Your task to perform on an android device: open app "NewsBreak: Local News & Alerts" Image 0: 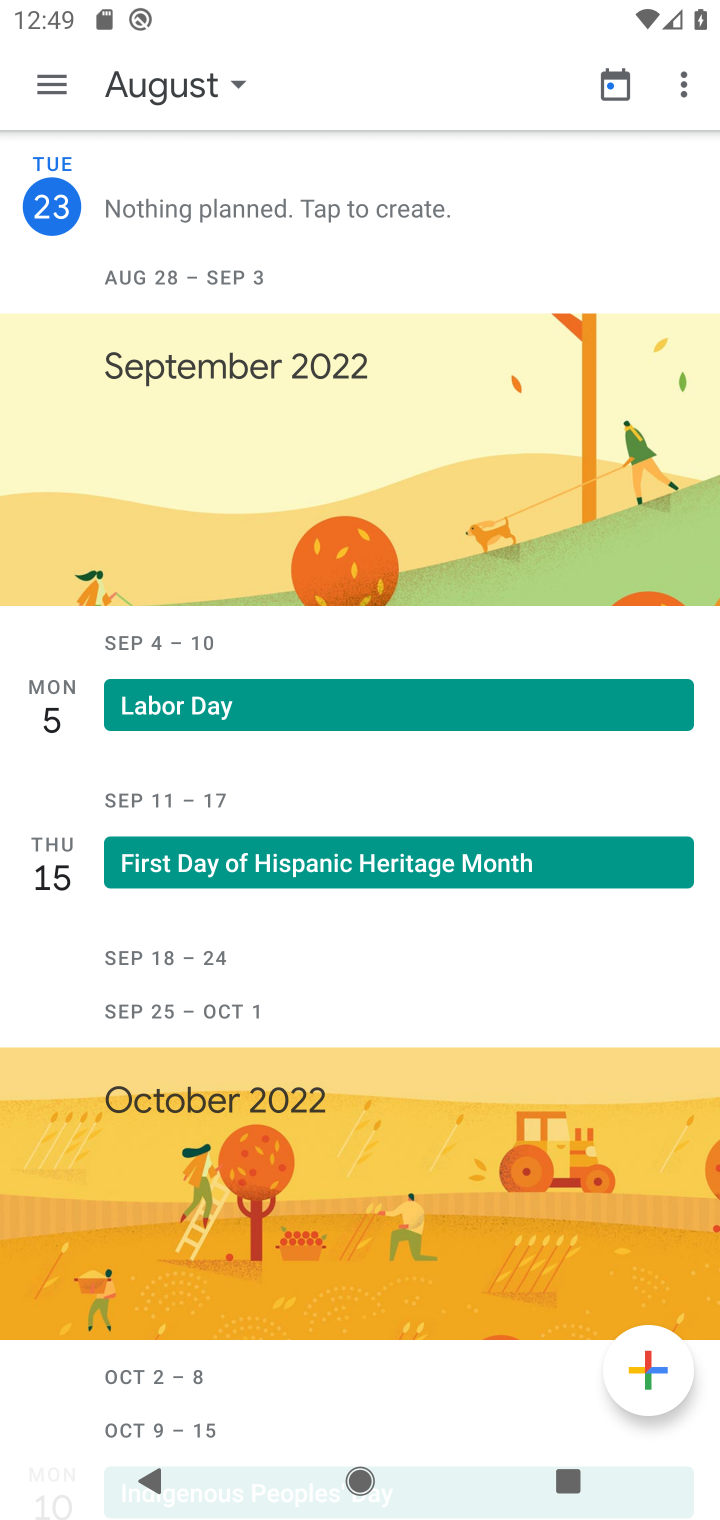
Step 0: press home button
Your task to perform on an android device: open app "NewsBreak: Local News & Alerts" Image 1: 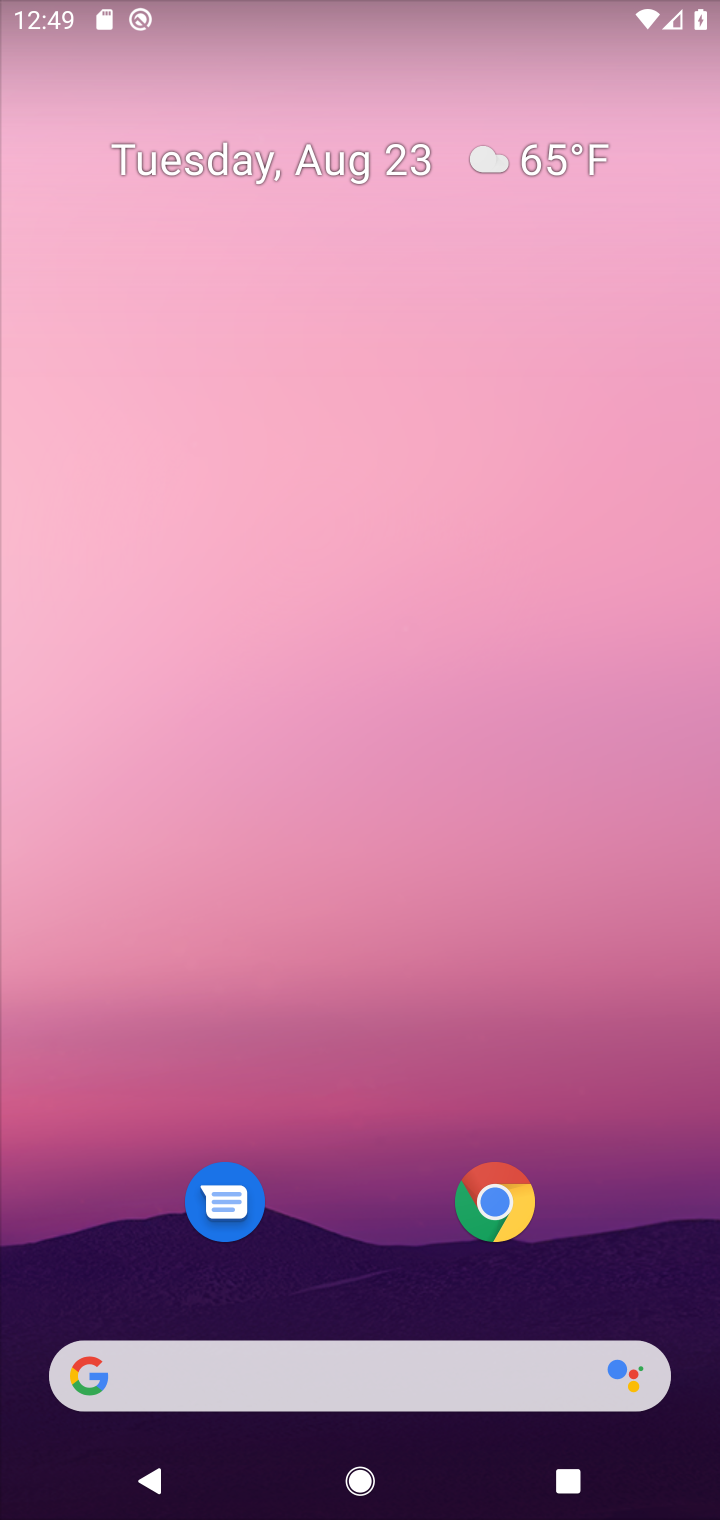
Step 1: drag from (375, 1196) to (402, 129)
Your task to perform on an android device: open app "NewsBreak: Local News & Alerts" Image 2: 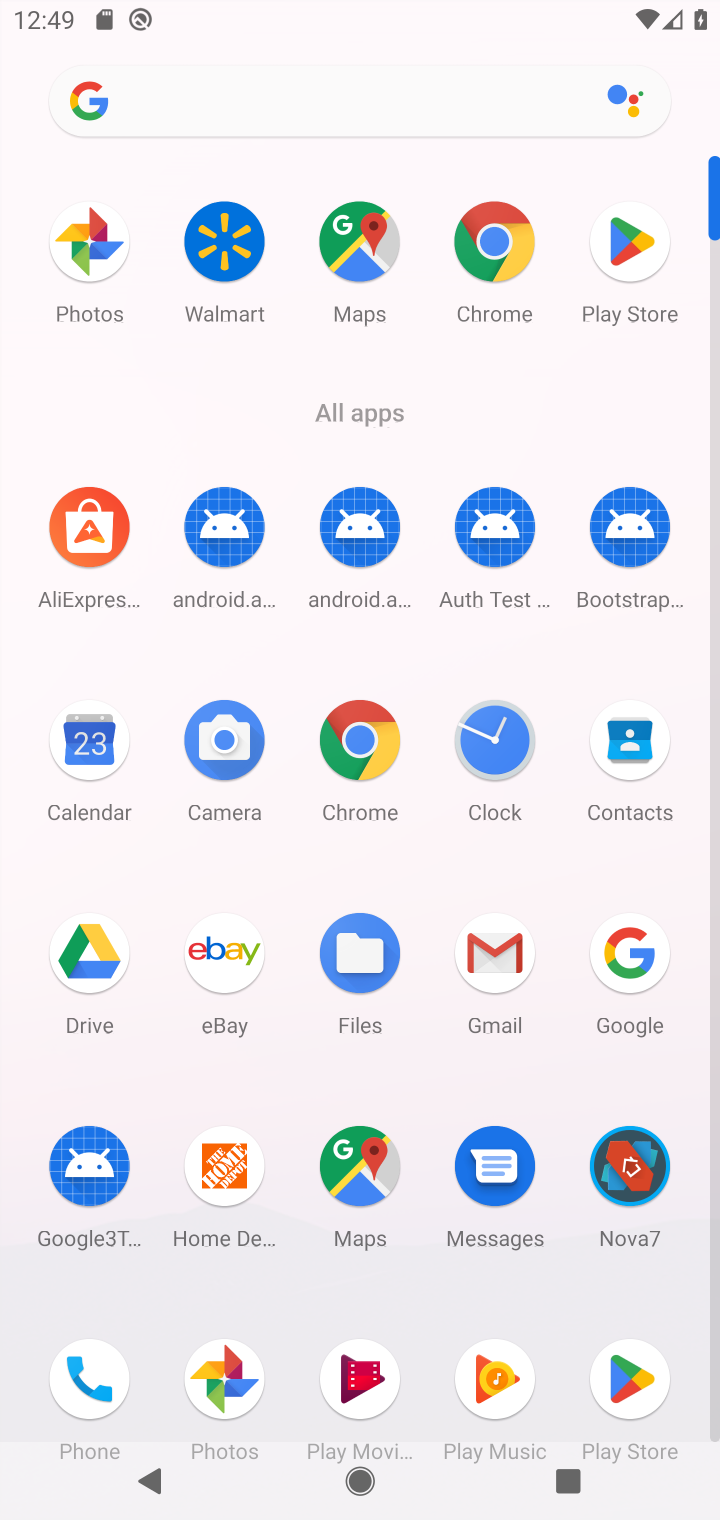
Step 2: click (617, 267)
Your task to perform on an android device: open app "NewsBreak: Local News & Alerts" Image 3: 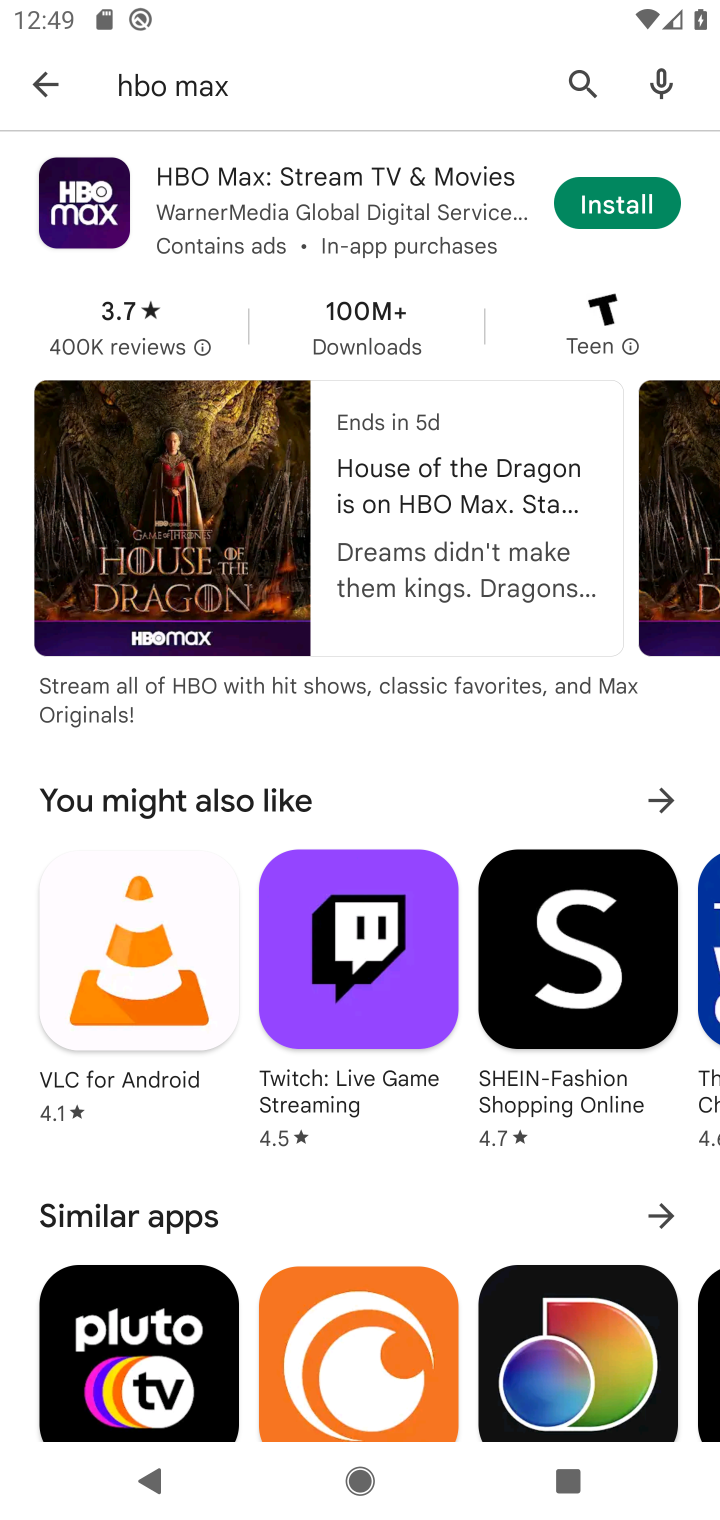
Step 3: click (567, 79)
Your task to perform on an android device: open app "NewsBreak: Local News & Alerts" Image 4: 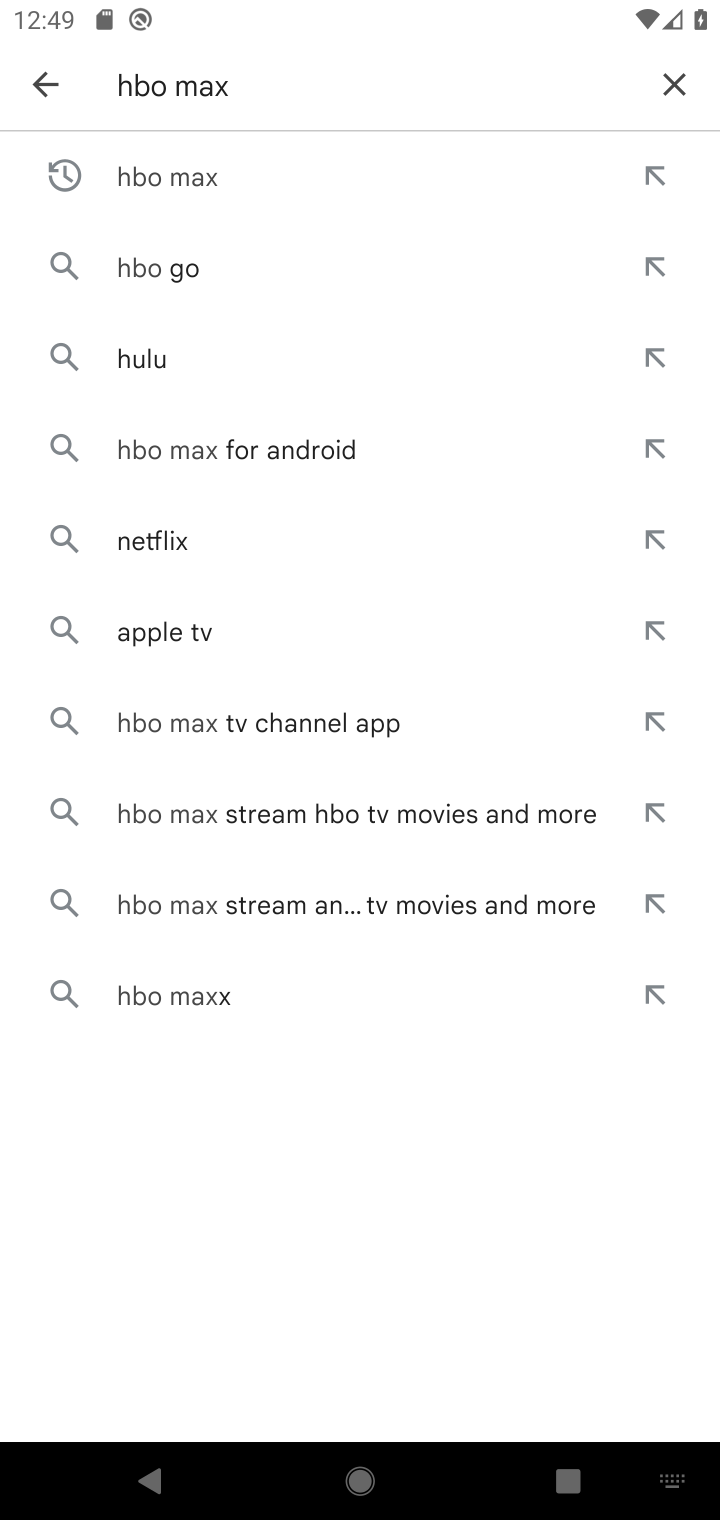
Step 4: click (680, 85)
Your task to perform on an android device: open app "NewsBreak: Local News & Alerts" Image 5: 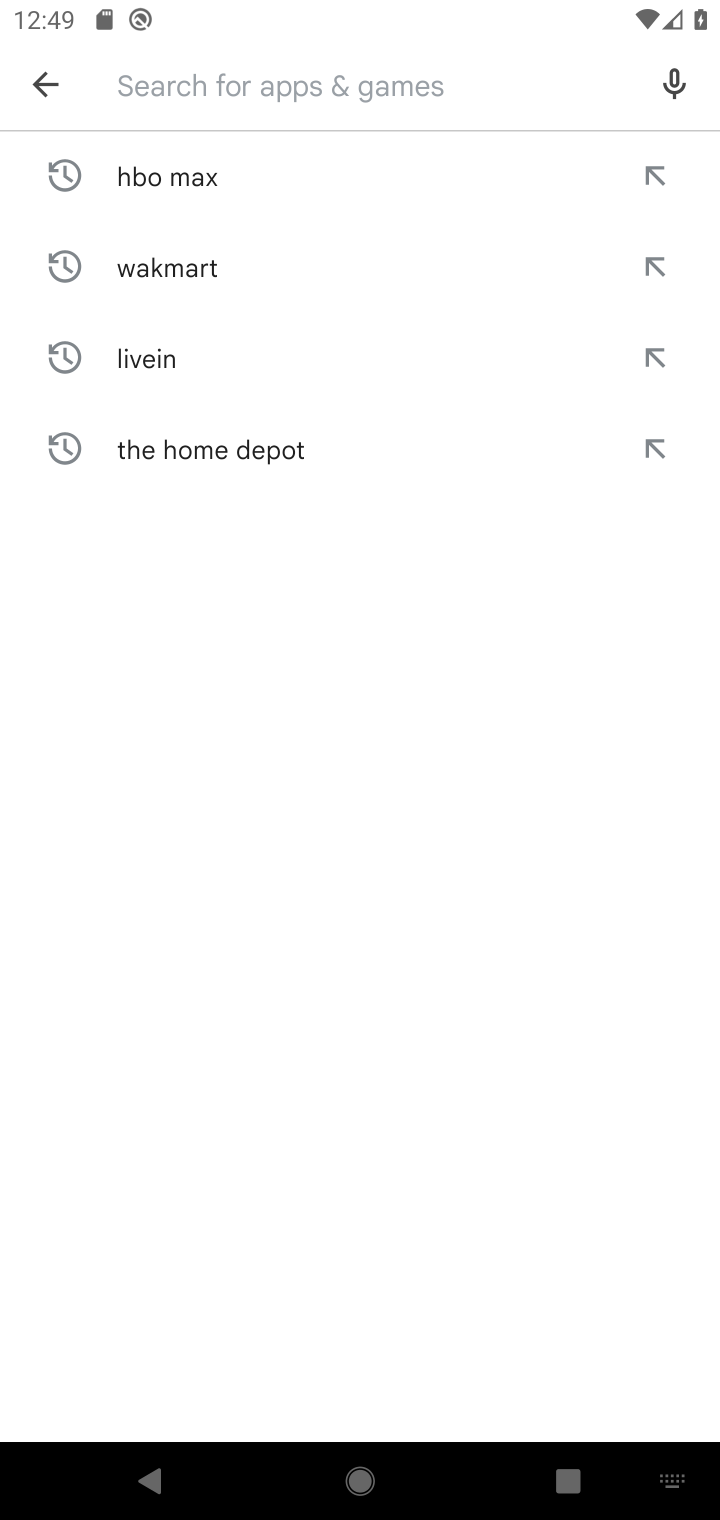
Step 5: type "newsbreak"
Your task to perform on an android device: open app "NewsBreak: Local News & Alerts" Image 6: 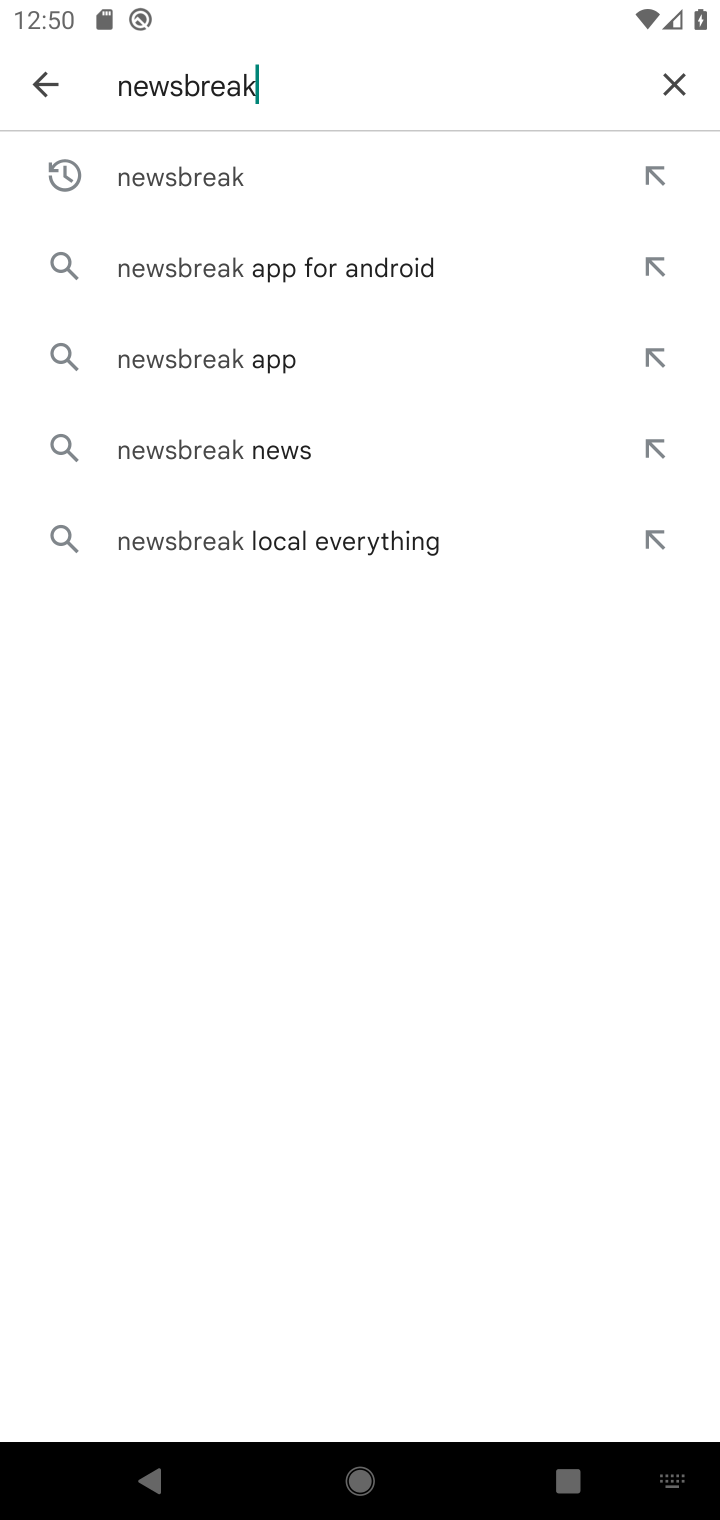
Step 6: click (238, 169)
Your task to perform on an android device: open app "NewsBreak: Local News & Alerts" Image 7: 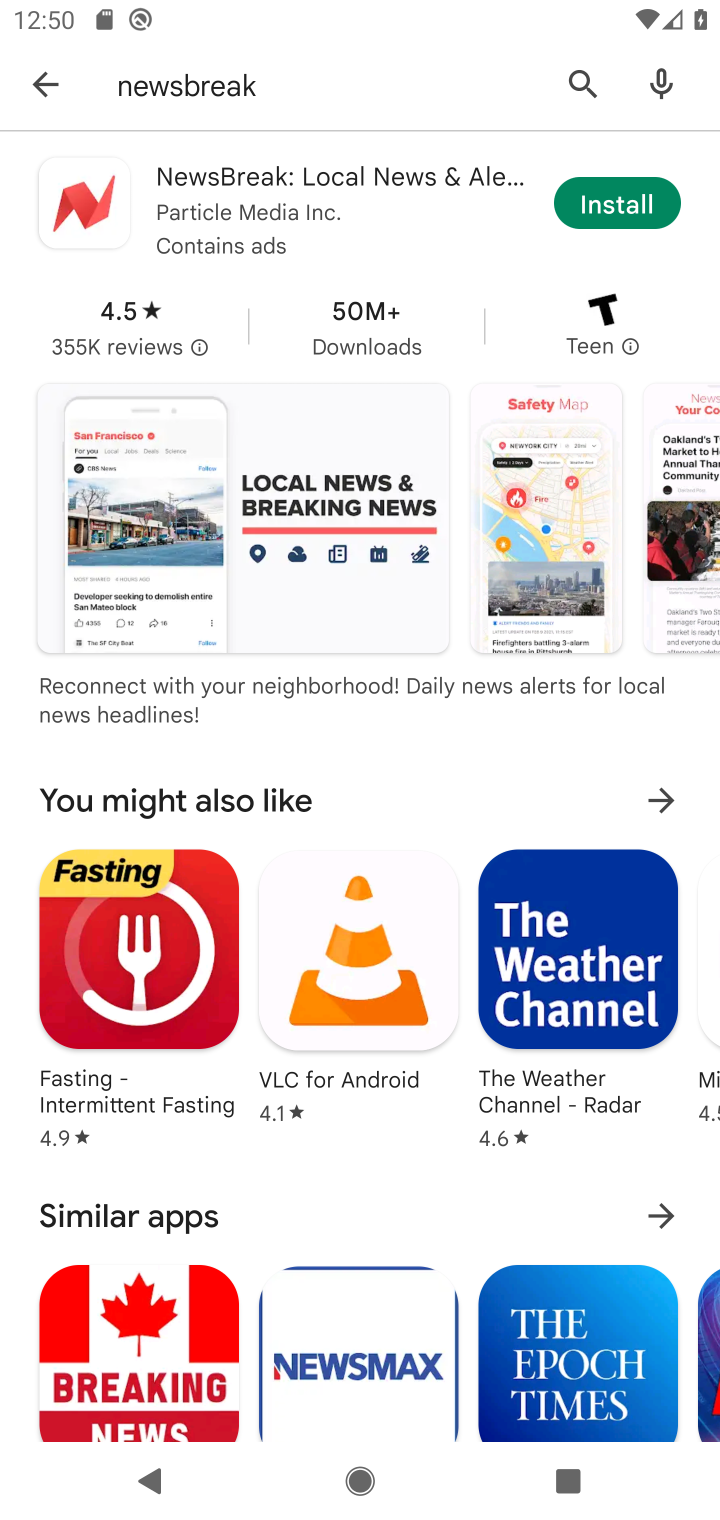
Step 7: task complete